Your task to perform on an android device: change timer sound Image 0: 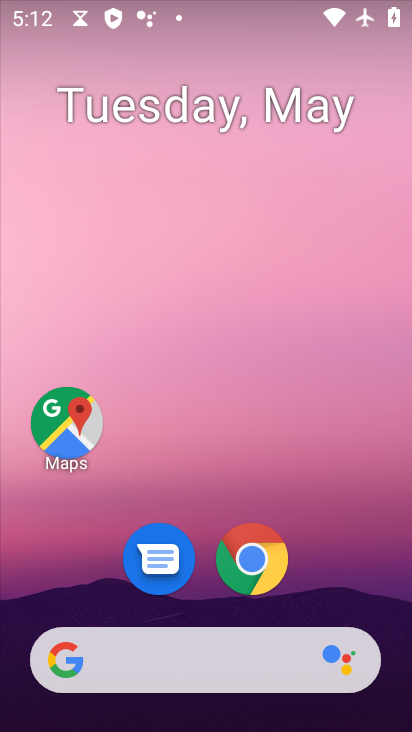
Step 0: drag from (363, 668) to (248, 157)
Your task to perform on an android device: change timer sound Image 1: 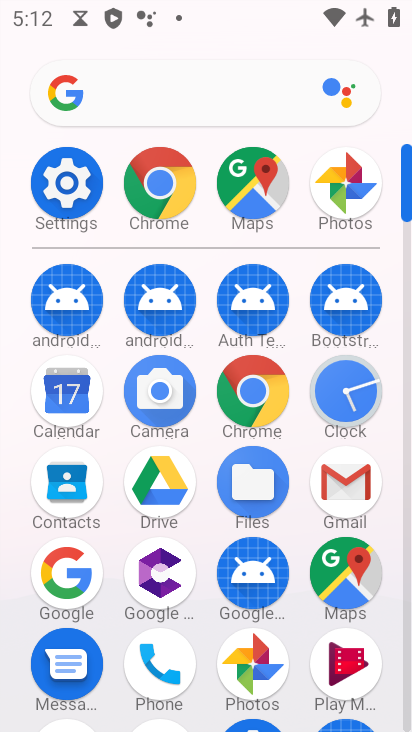
Step 1: click (56, 196)
Your task to perform on an android device: change timer sound Image 2: 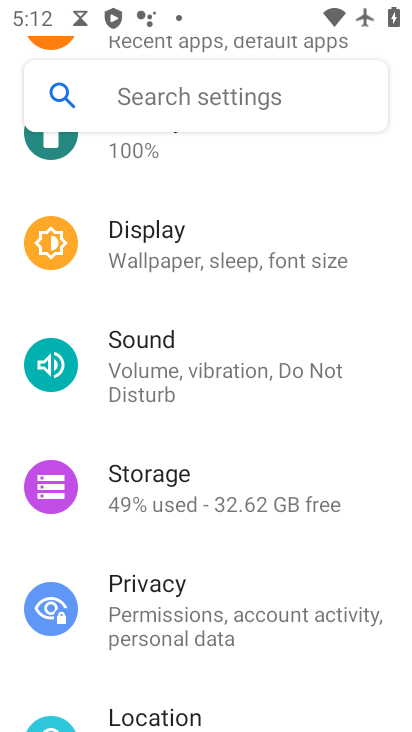
Step 2: drag from (196, 252) to (278, 727)
Your task to perform on an android device: change timer sound Image 3: 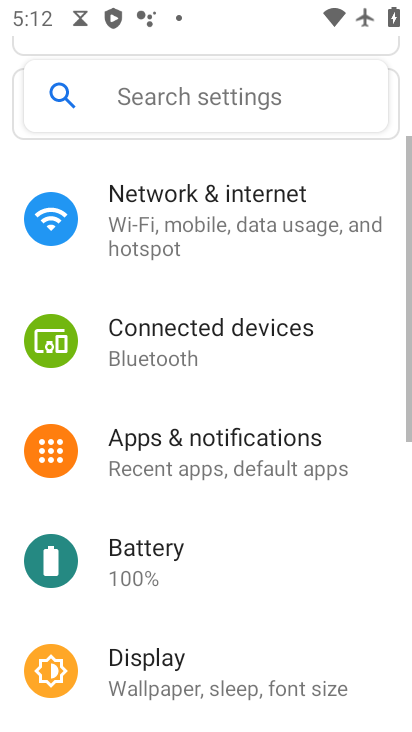
Step 3: drag from (202, 373) to (233, 617)
Your task to perform on an android device: change timer sound Image 4: 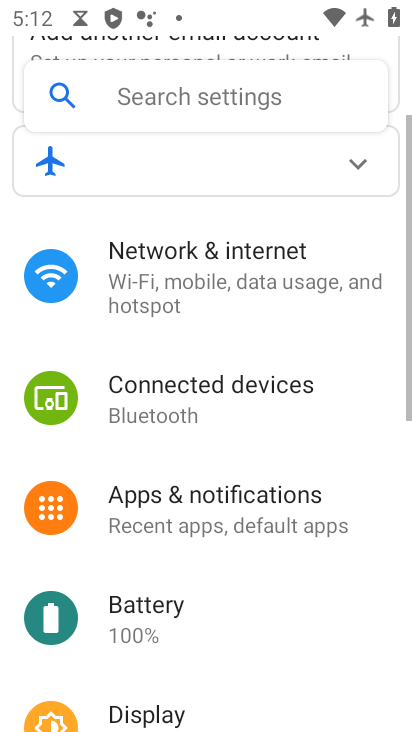
Step 4: drag from (215, 318) to (258, 645)
Your task to perform on an android device: change timer sound Image 5: 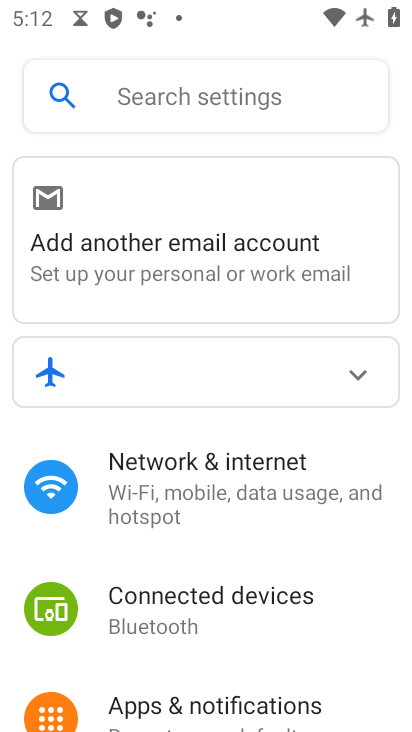
Step 5: drag from (261, 607) to (211, 151)
Your task to perform on an android device: change timer sound Image 6: 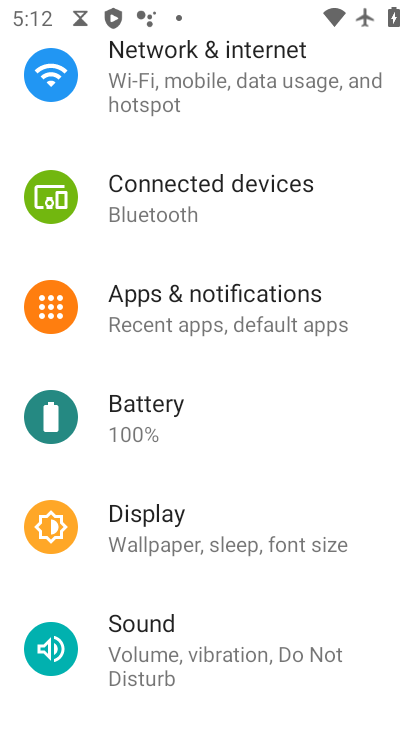
Step 6: drag from (154, 453) to (148, 0)
Your task to perform on an android device: change timer sound Image 7: 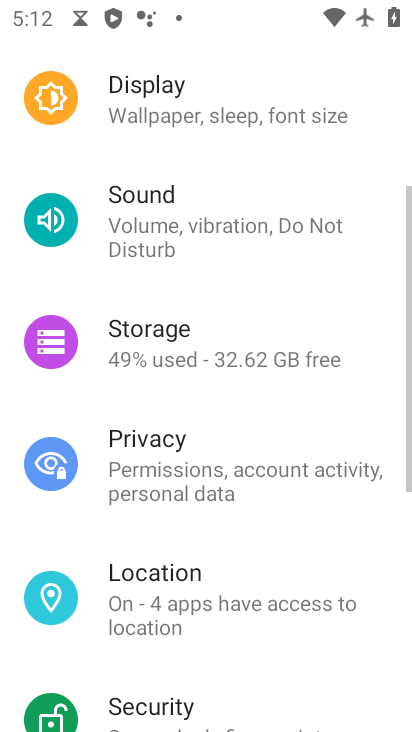
Step 7: click (246, 546)
Your task to perform on an android device: change timer sound Image 8: 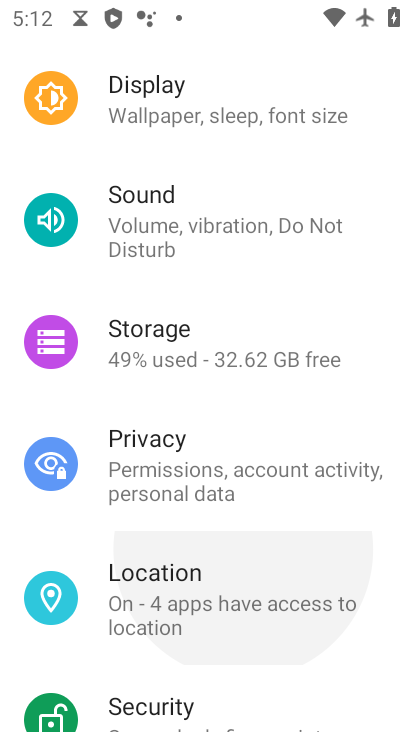
Step 8: drag from (246, 546) to (210, 218)
Your task to perform on an android device: change timer sound Image 9: 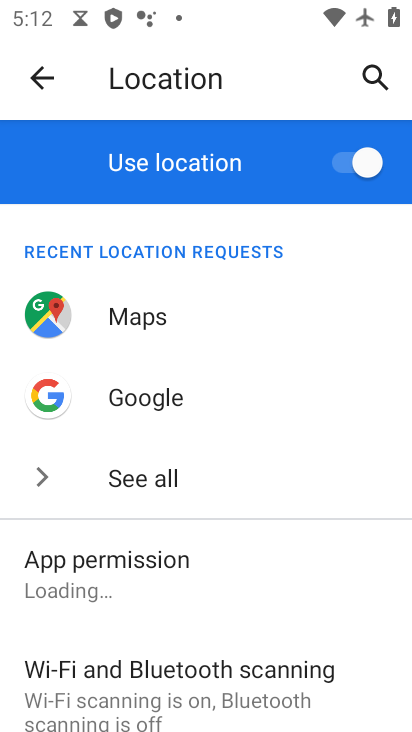
Step 9: drag from (218, 584) to (153, 161)
Your task to perform on an android device: change timer sound Image 10: 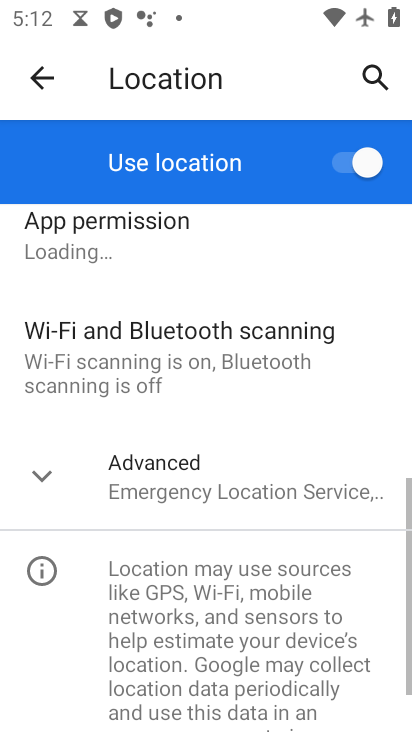
Step 10: drag from (173, 520) to (148, 106)
Your task to perform on an android device: change timer sound Image 11: 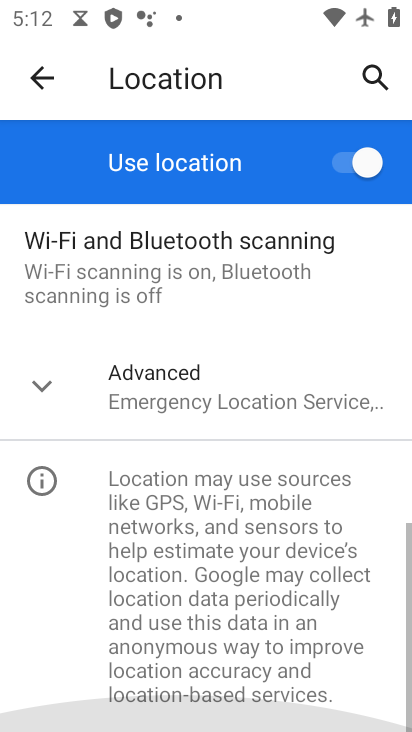
Step 11: drag from (257, 453) to (265, 78)
Your task to perform on an android device: change timer sound Image 12: 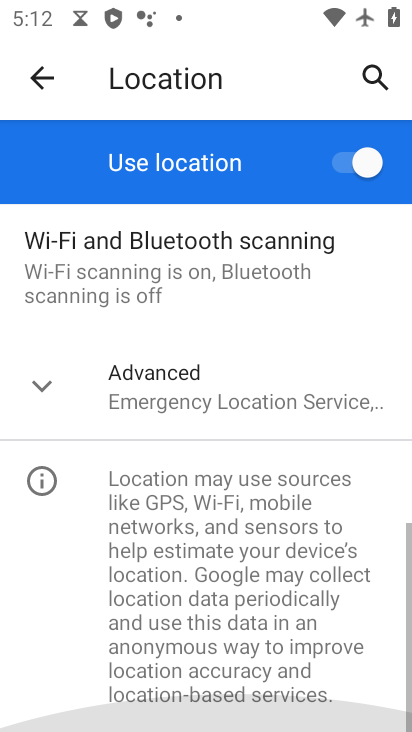
Step 12: drag from (240, 509) to (173, 73)
Your task to perform on an android device: change timer sound Image 13: 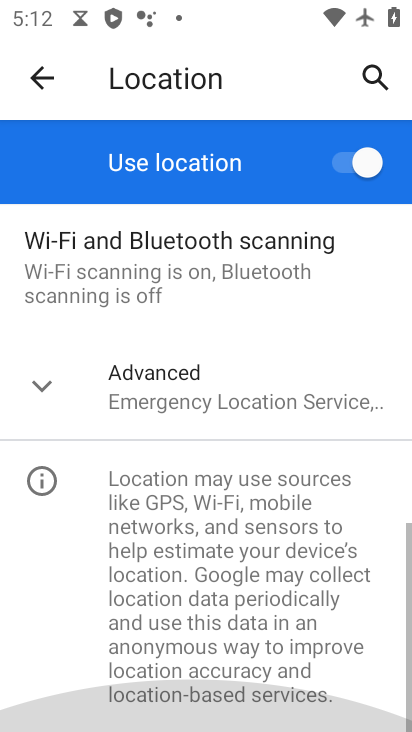
Step 13: drag from (239, 612) to (230, 197)
Your task to perform on an android device: change timer sound Image 14: 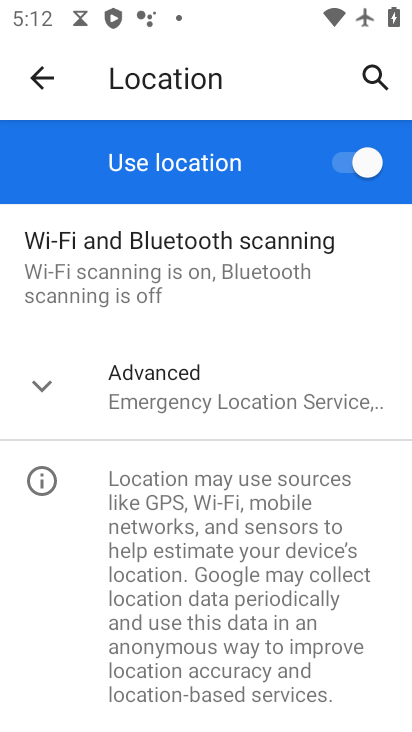
Step 14: click (42, 80)
Your task to perform on an android device: change timer sound Image 15: 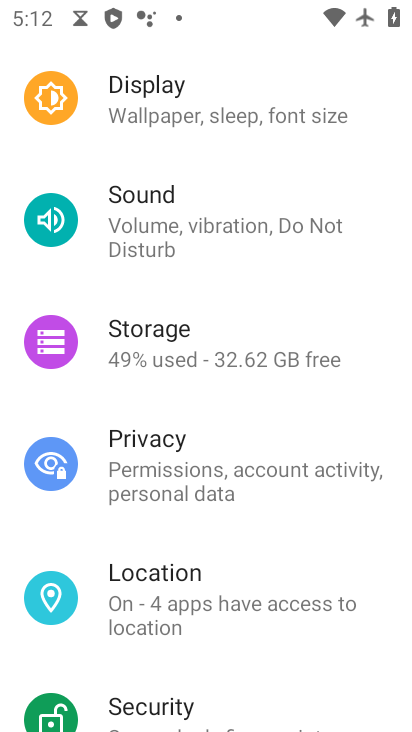
Step 15: press back button
Your task to perform on an android device: change timer sound Image 16: 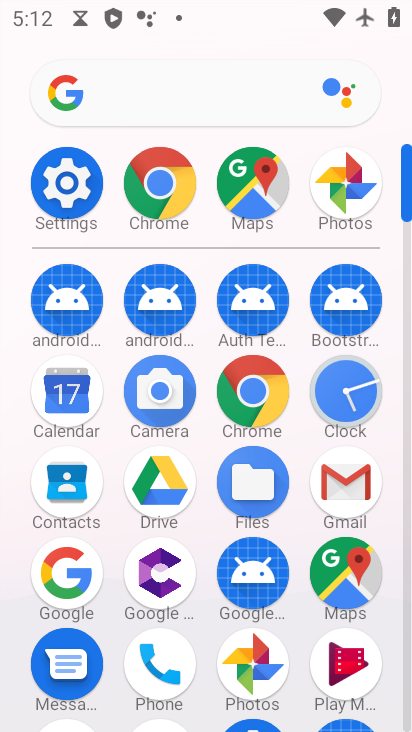
Step 16: click (341, 412)
Your task to perform on an android device: change timer sound Image 17: 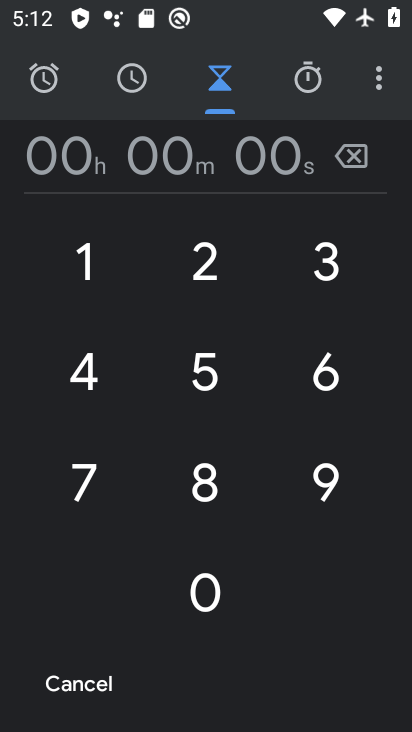
Step 17: click (213, 471)
Your task to perform on an android device: change timer sound Image 18: 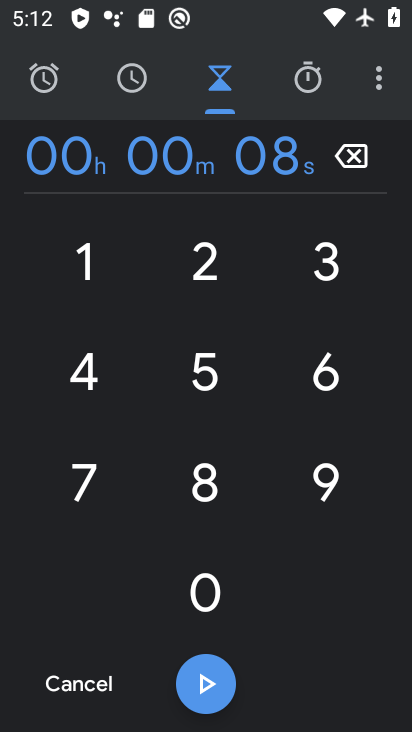
Step 18: click (201, 484)
Your task to perform on an android device: change timer sound Image 19: 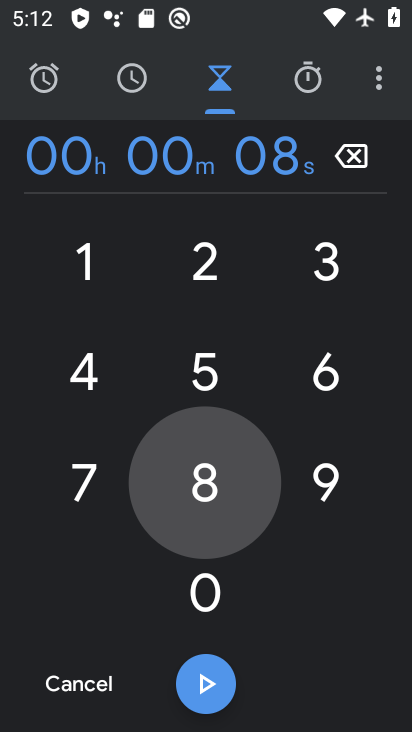
Step 19: click (201, 484)
Your task to perform on an android device: change timer sound Image 20: 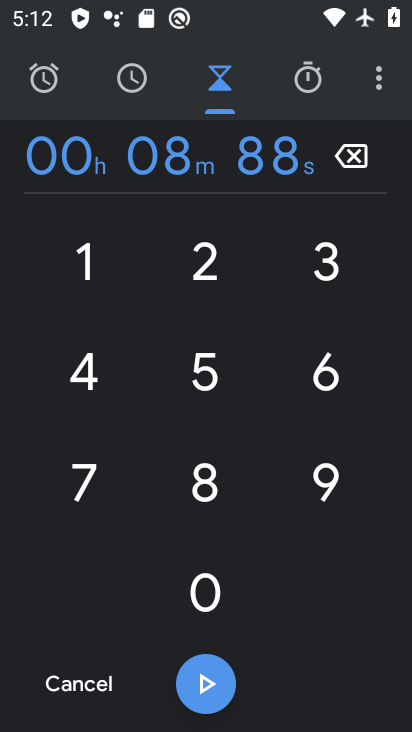
Step 20: click (199, 473)
Your task to perform on an android device: change timer sound Image 21: 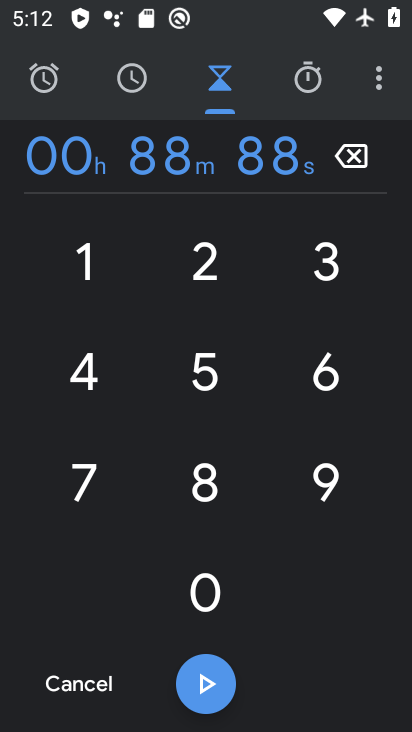
Step 21: click (208, 691)
Your task to perform on an android device: change timer sound Image 22: 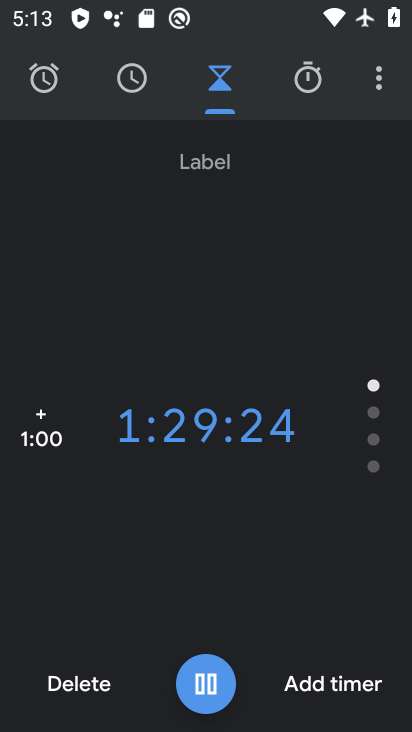
Step 22: click (201, 674)
Your task to perform on an android device: change timer sound Image 23: 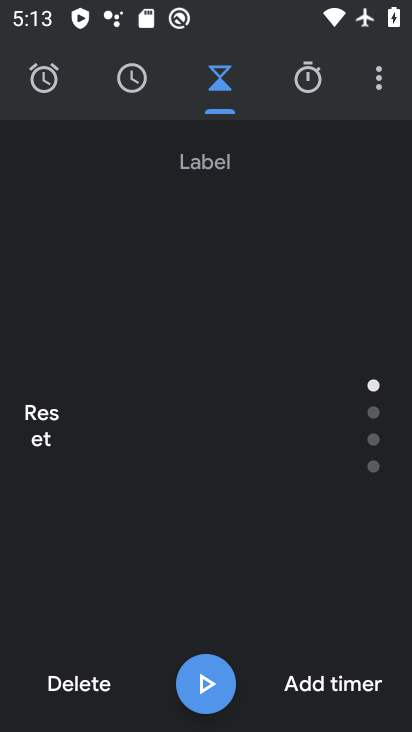
Step 23: task complete